Your task to perform on an android device: show emergency info Image 0: 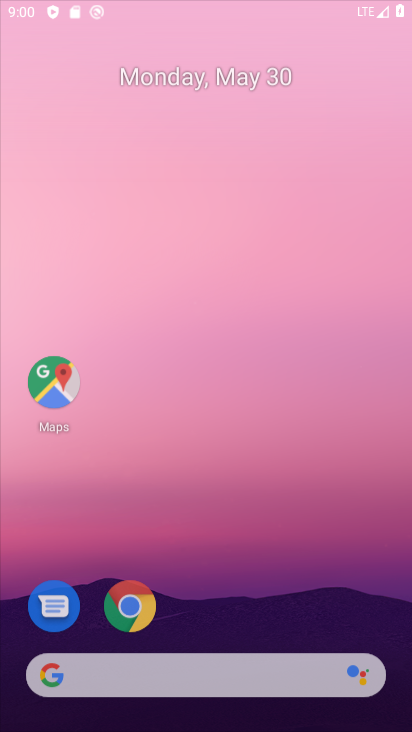
Step 0: drag from (191, 335) to (252, 144)
Your task to perform on an android device: show emergency info Image 1: 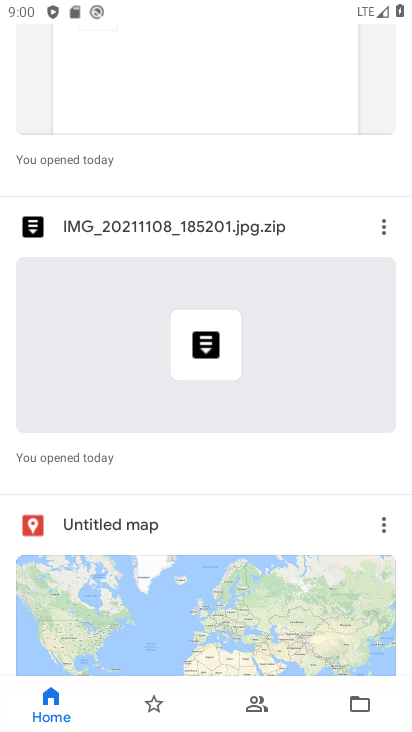
Step 1: press home button
Your task to perform on an android device: show emergency info Image 2: 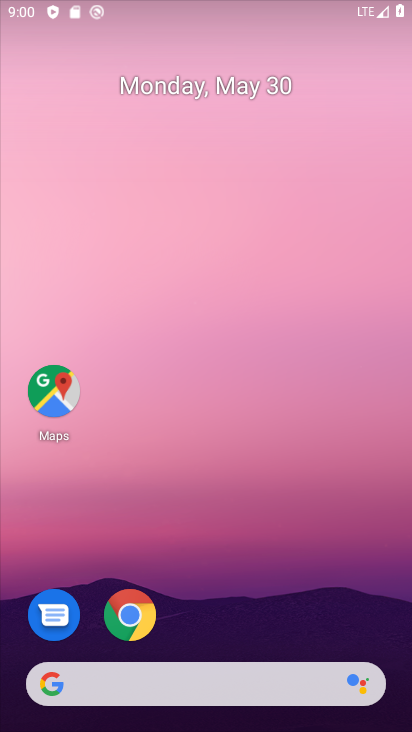
Step 2: drag from (109, 723) to (301, 98)
Your task to perform on an android device: show emergency info Image 3: 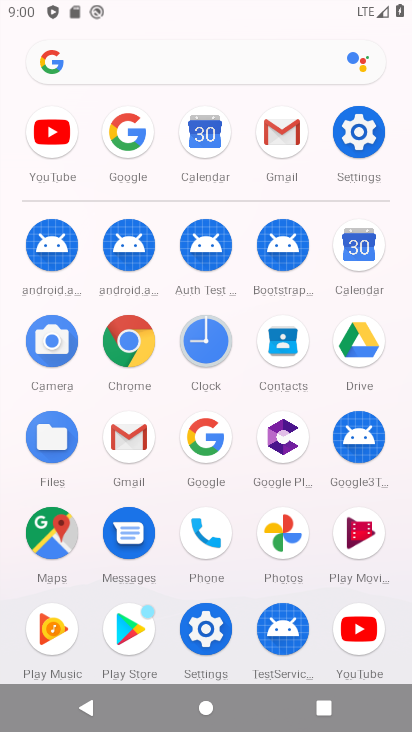
Step 3: click (374, 112)
Your task to perform on an android device: show emergency info Image 4: 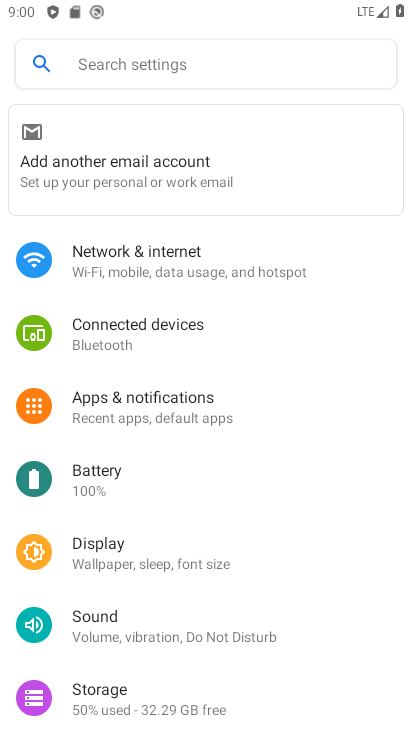
Step 4: drag from (212, 619) to (283, 160)
Your task to perform on an android device: show emergency info Image 5: 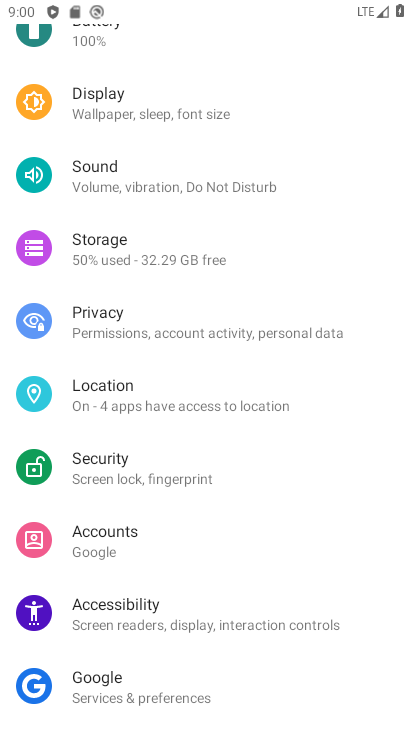
Step 5: drag from (101, 671) to (185, 264)
Your task to perform on an android device: show emergency info Image 6: 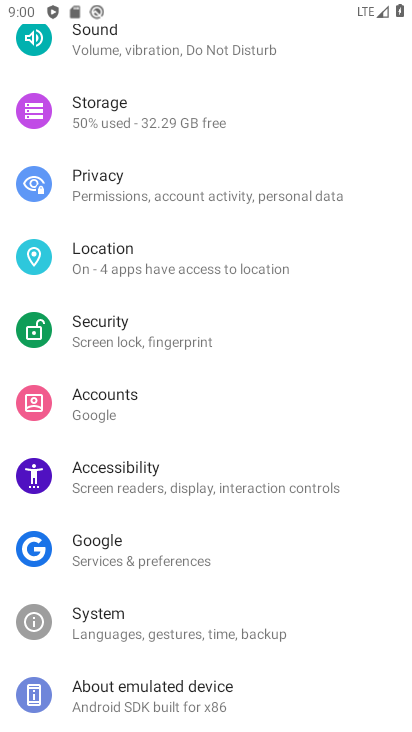
Step 6: click (121, 697)
Your task to perform on an android device: show emergency info Image 7: 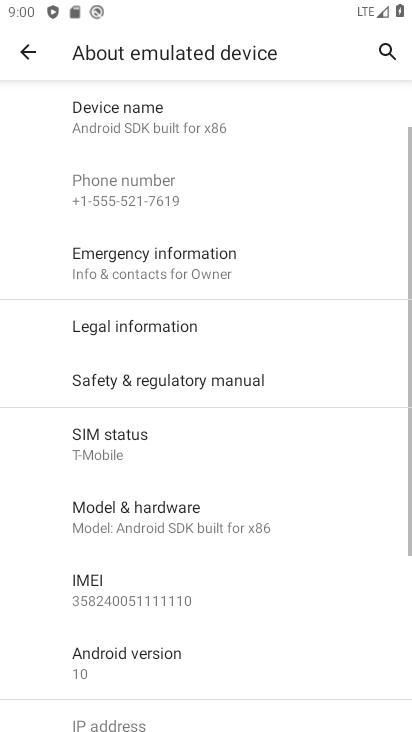
Step 7: click (170, 244)
Your task to perform on an android device: show emergency info Image 8: 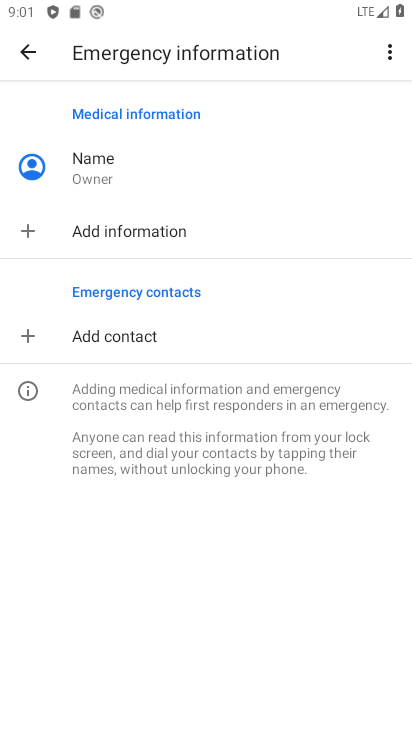
Step 8: task complete